Your task to perform on an android device: toggle notification dots Image 0: 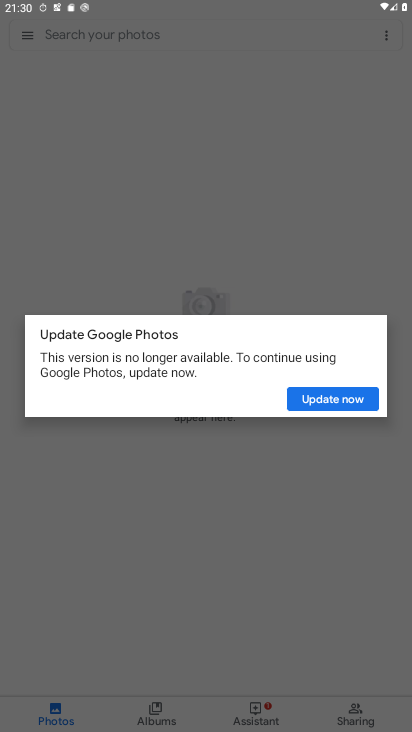
Step 0: press home button
Your task to perform on an android device: toggle notification dots Image 1: 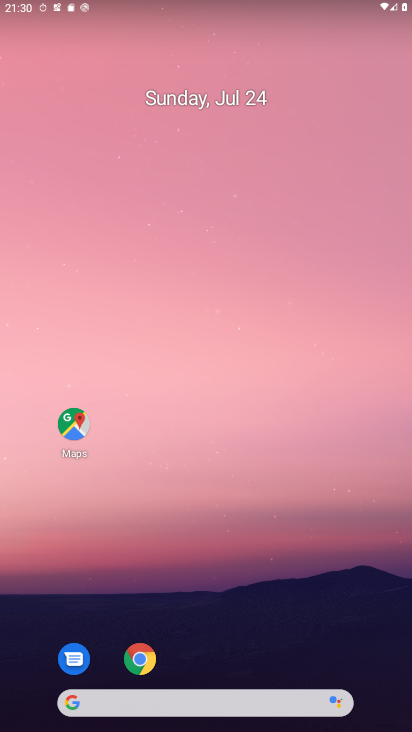
Step 1: drag from (210, 726) to (188, 8)
Your task to perform on an android device: toggle notification dots Image 2: 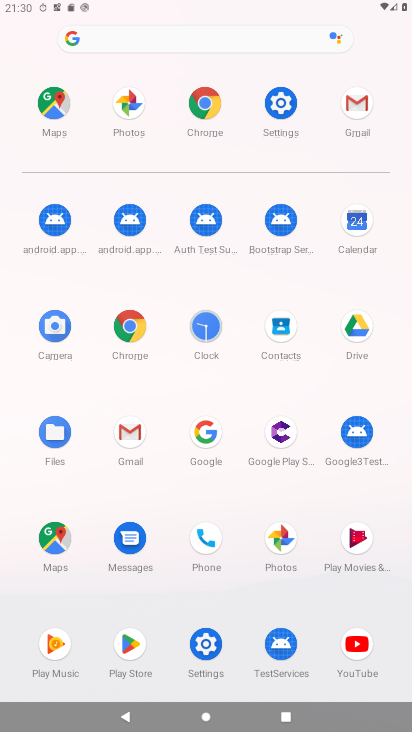
Step 2: click (278, 102)
Your task to perform on an android device: toggle notification dots Image 3: 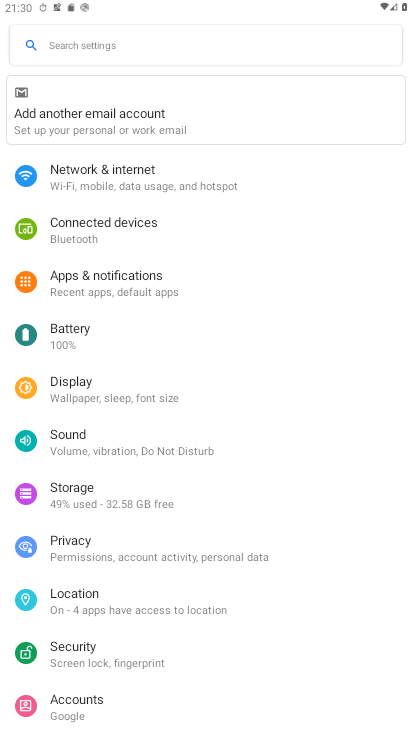
Step 3: click (107, 280)
Your task to perform on an android device: toggle notification dots Image 4: 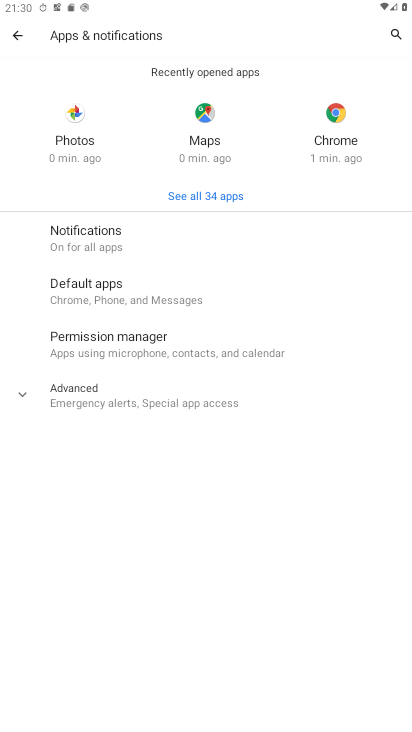
Step 4: click (91, 234)
Your task to perform on an android device: toggle notification dots Image 5: 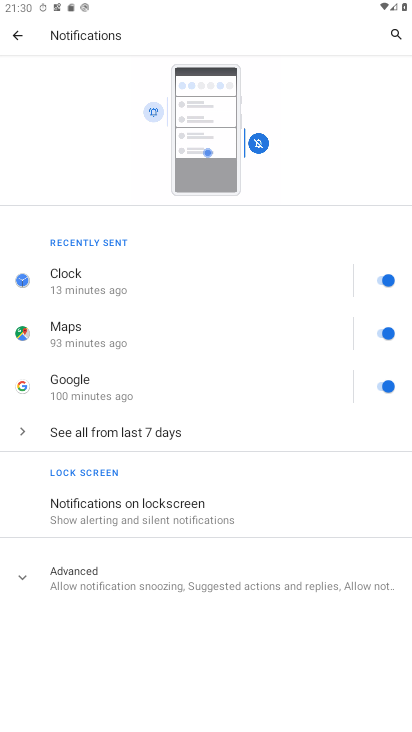
Step 5: click (168, 582)
Your task to perform on an android device: toggle notification dots Image 6: 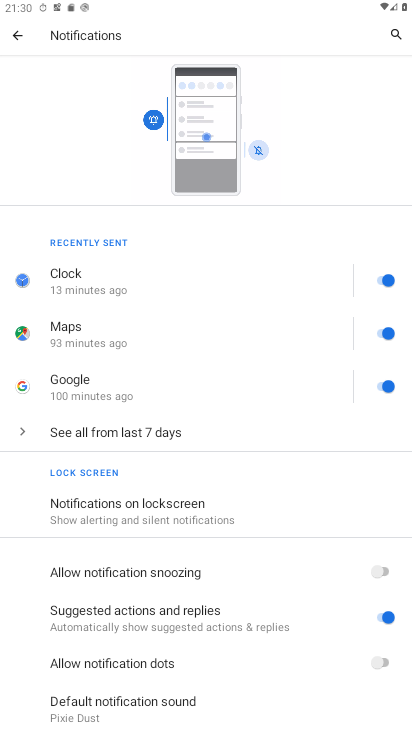
Step 6: click (389, 662)
Your task to perform on an android device: toggle notification dots Image 7: 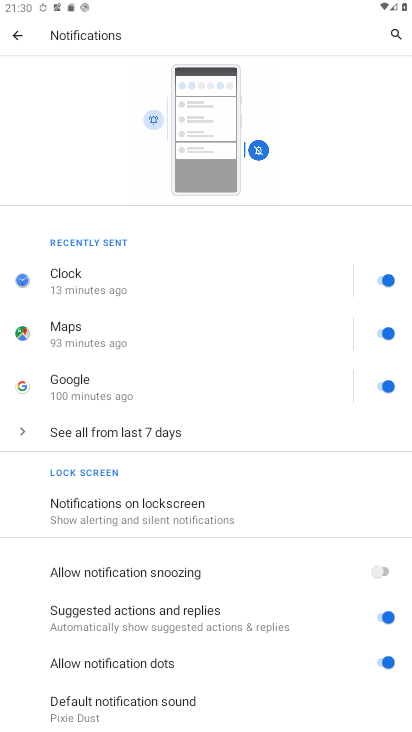
Step 7: task complete